Your task to perform on an android device: add a contact Image 0: 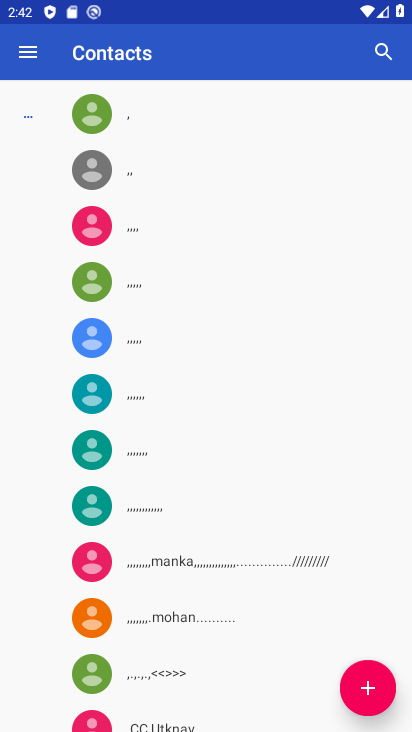
Step 0: press home button
Your task to perform on an android device: add a contact Image 1: 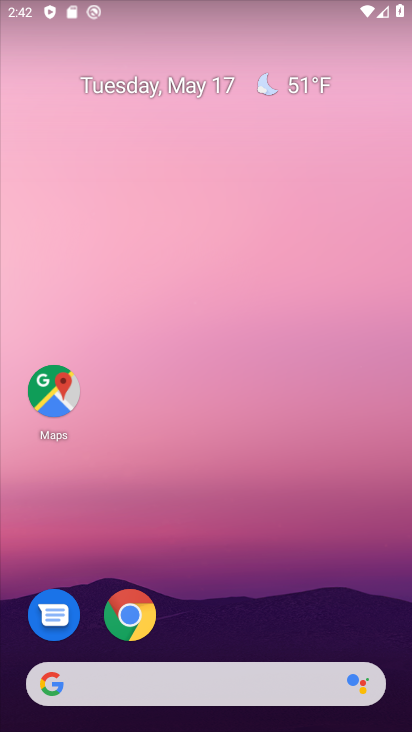
Step 1: drag from (210, 636) to (256, 60)
Your task to perform on an android device: add a contact Image 2: 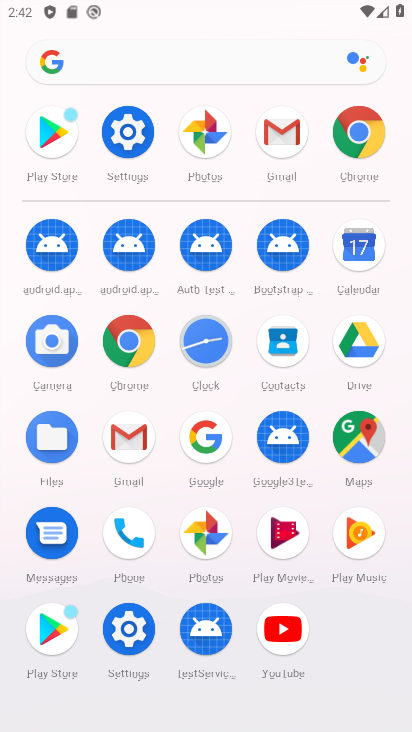
Step 2: click (280, 333)
Your task to perform on an android device: add a contact Image 3: 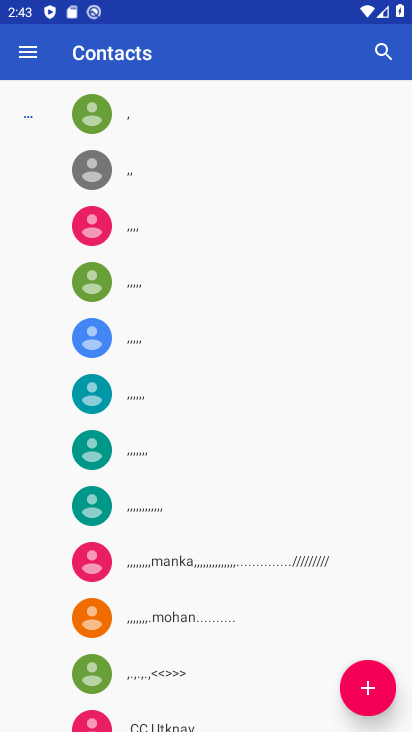
Step 3: click (365, 681)
Your task to perform on an android device: add a contact Image 4: 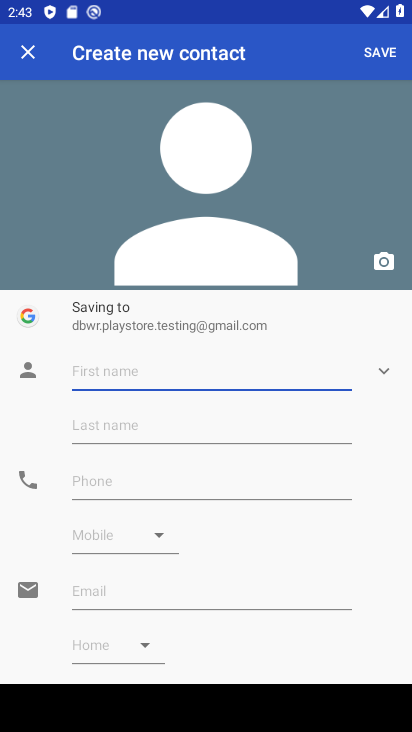
Step 4: type "hgvfc"
Your task to perform on an android device: add a contact Image 5: 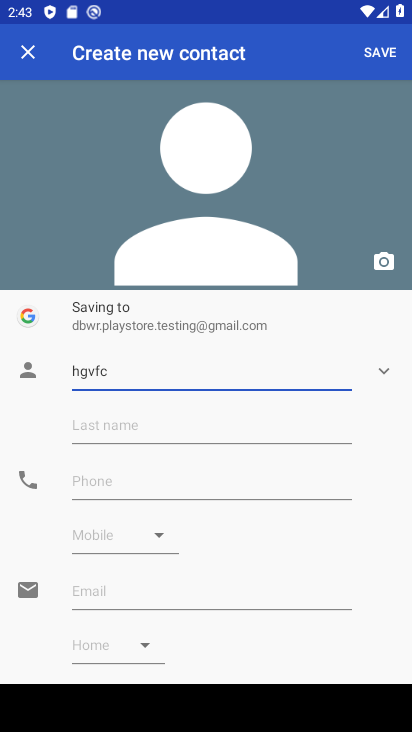
Step 5: click (384, 48)
Your task to perform on an android device: add a contact Image 6: 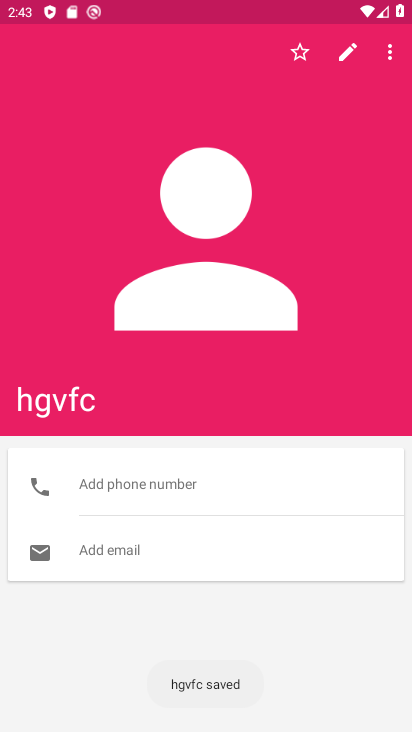
Step 6: task complete